Your task to perform on an android device: Go to calendar. Show me events next week Image 0: 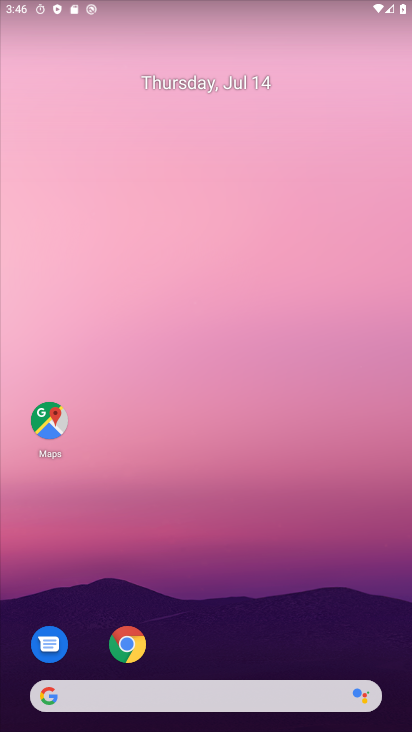
Step 0: drag from (237, 541) to (274, 1)
Your task to perform on an android device: Go to calendar. Show me events next week Image 1: 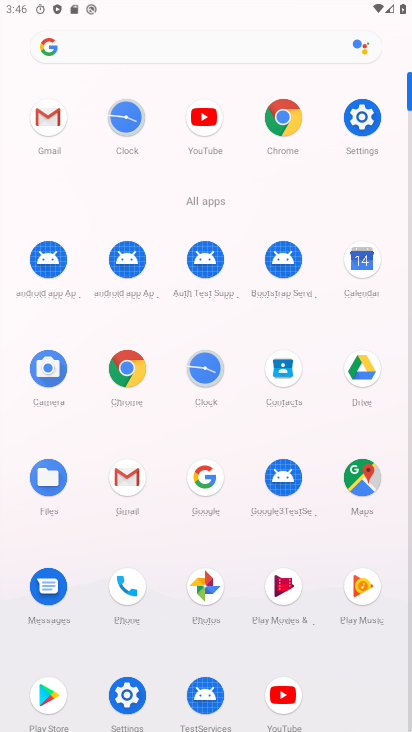
Step 1: click (362, 271)
Your task to perform on an android device: Go to calendar. Show me events next week Image 2: 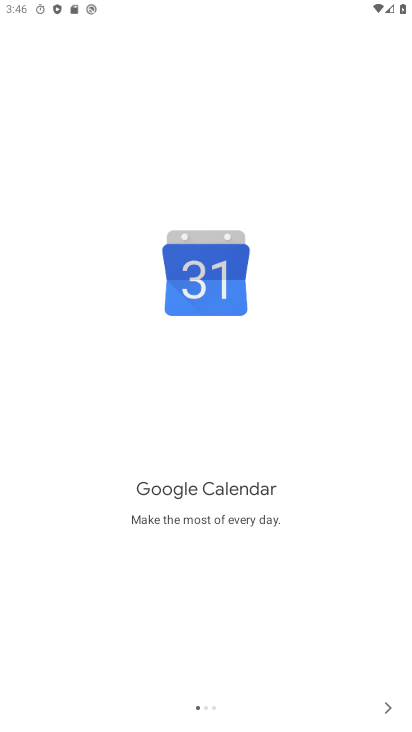
Step 2: click (387, 706)
Your task to perform on an android device: Go to calendar. Show me events next week Image 3: 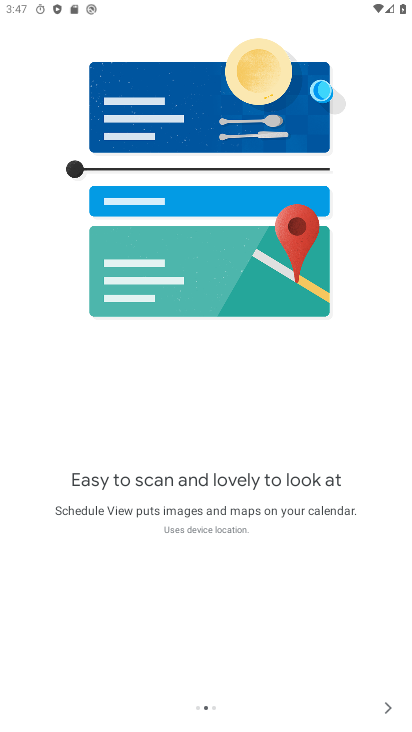
Step 3: click (390, 701)
Your task to perform on an android device: Go to calendar. Show me events next week Image 4: 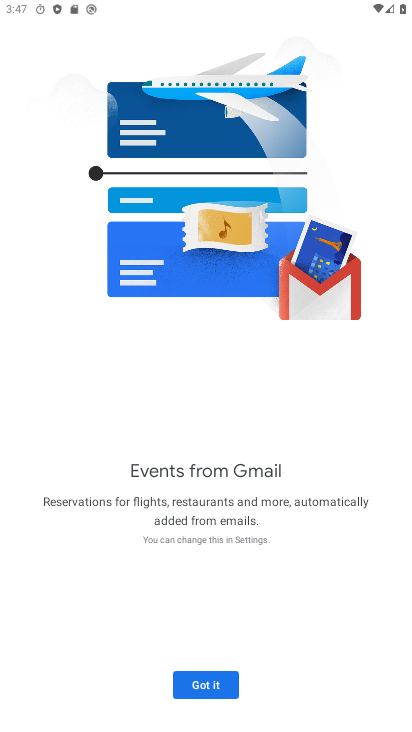
Step 4: click (216, 675)
Your task to perform on an android device: Go to calendar. Show me events next week Image 5: 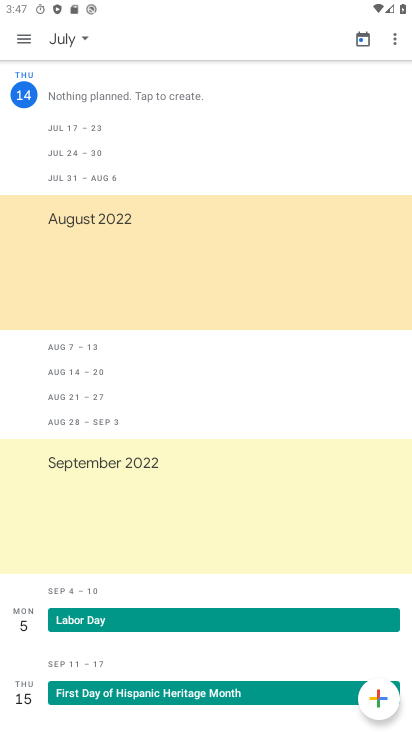
Step 5: click (79, 32)
Your task to perform on an android device: Go to calendar. Show me events next week Image 6: 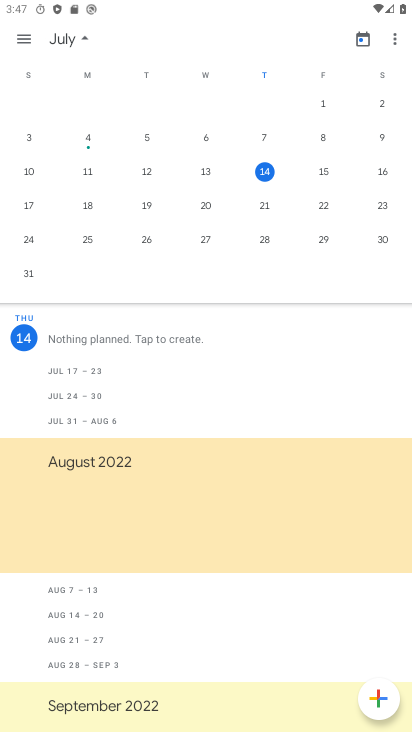
Step 6: click (85, 204)
Your task to perform on an android device: Go to calendar. Show me events next week Image 7: 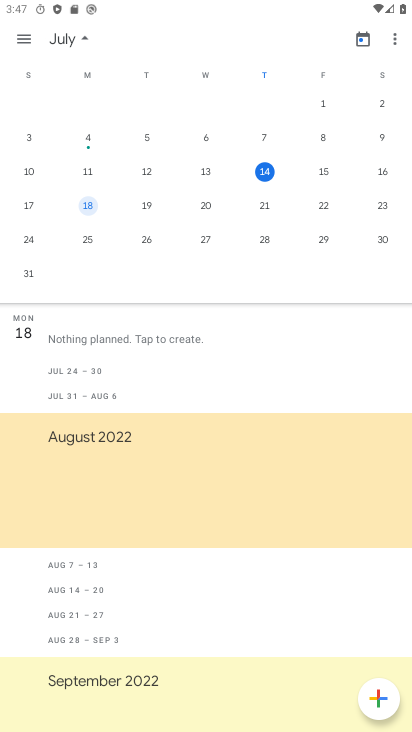
Step 7: task complete